Your task to perform on an android device: set an alarm Image 0: 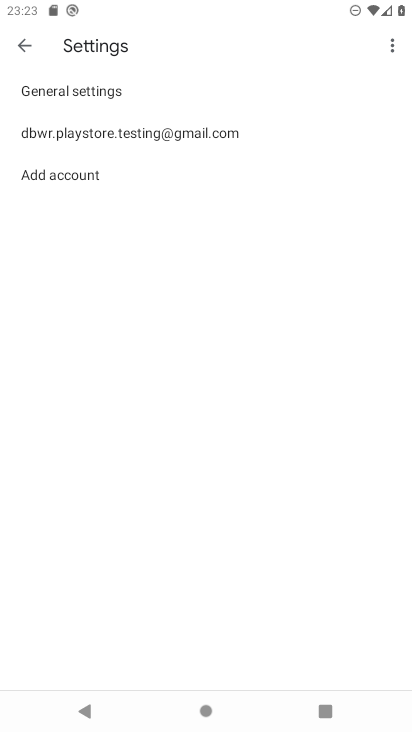
Step 0: press home button
Your task to perform on an android device: set an alarm Image 1: 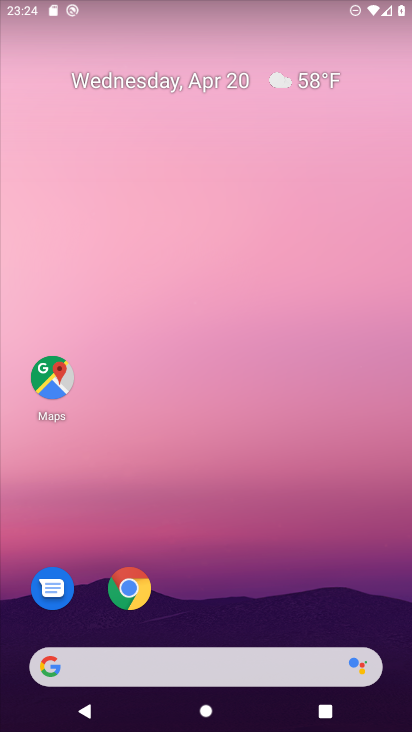
Step 1: drag from (225, 719) to (196, 109)
Your task to perform on an android device: set an alarm Image 2: 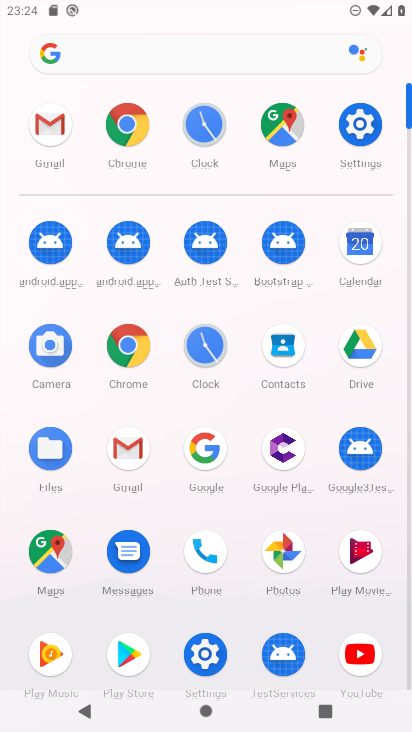
Step 2: click (204, 342)
Your task to perform on an android device: set an alarm Image 3: 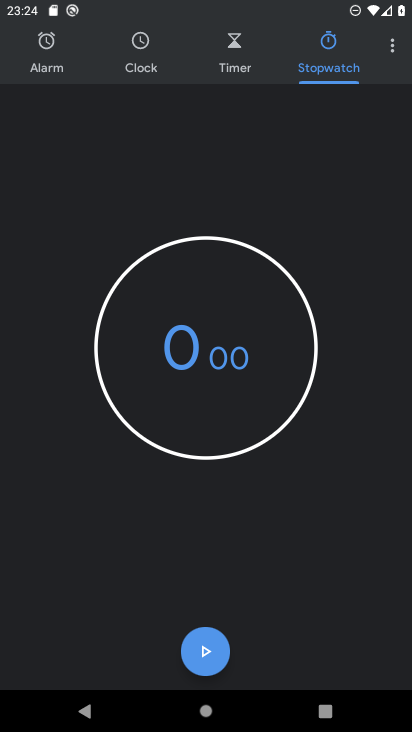
Step 3: click (45, 51)
Your task to perform on an android device: set an alarm Image 4: 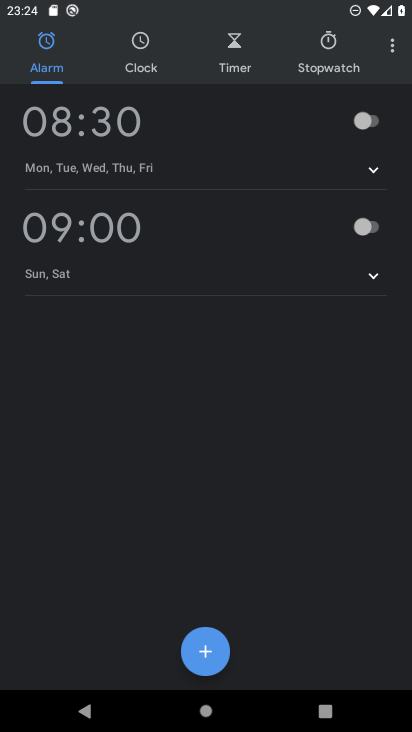
Step 4: click (207, 651)
Your task to perform on an android device: set an alarm Image 5: 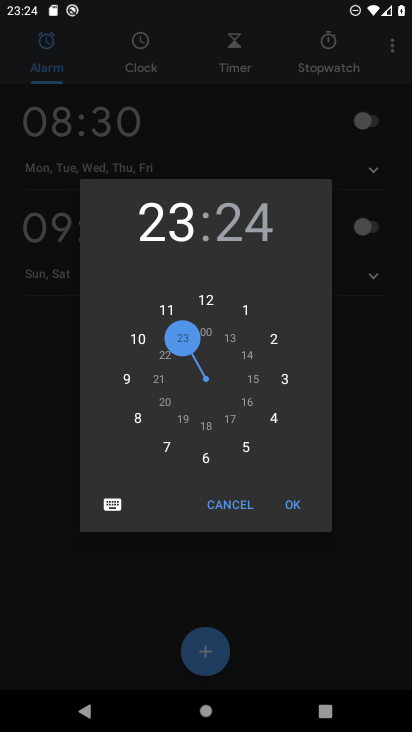
Step 5: click (206, 456)
Your task to perform on an android device: set an alarm Image 6: 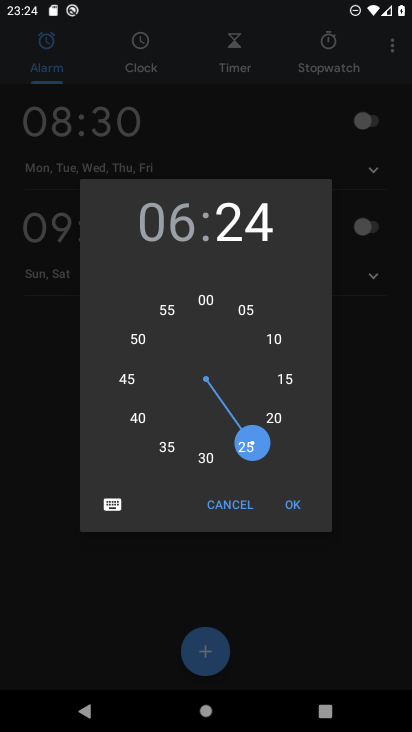
Step 6: click (290, 502)
Your task to perform on an android device: set an alarm Image 7: 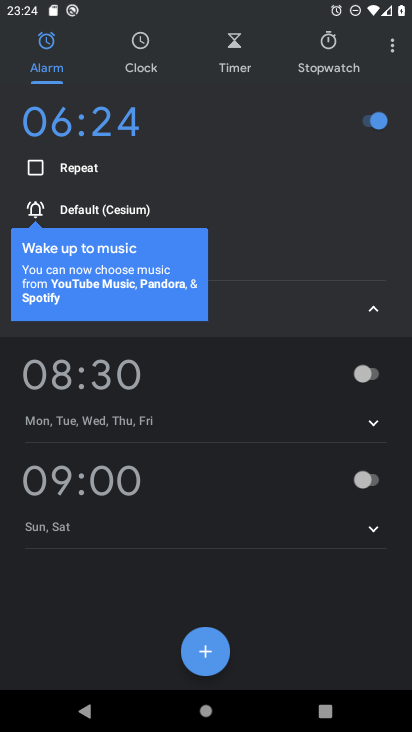
Step 7: task complete